Your task to perform on an android device: Show me the alarms in the clock app Image 0: 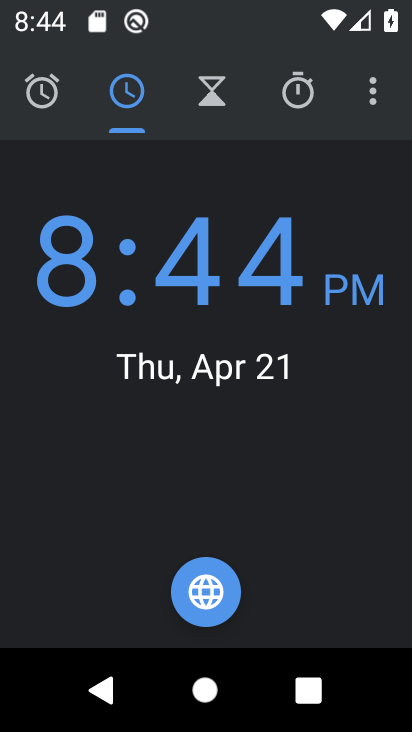
Step 0: click (46, 109)
Your task to perform on an android device: Show me the alarms in the clock app Image 1: 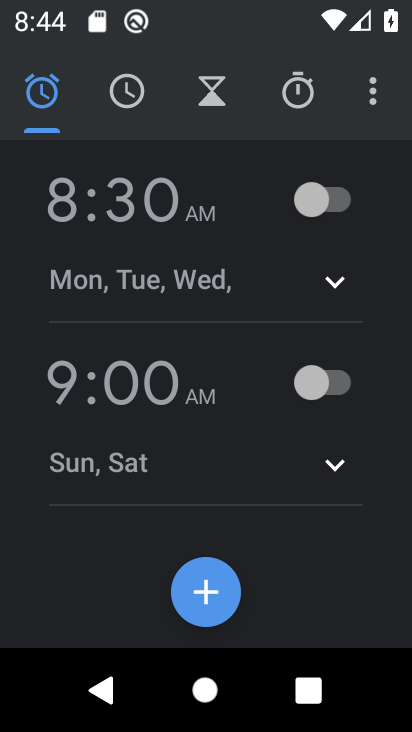
Step 1: task complete